Your task to perform on an android device: turn off wifi Image 0: 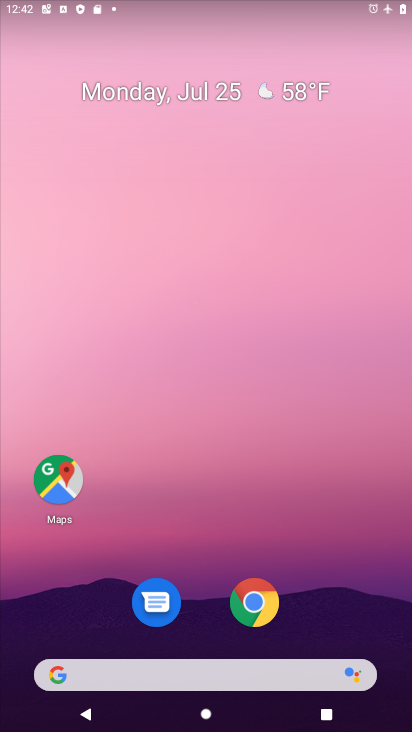
Step 0: drag from (205, 593) to (171, 75)
Your task to perform on an android device: turn off wifi Image 1: 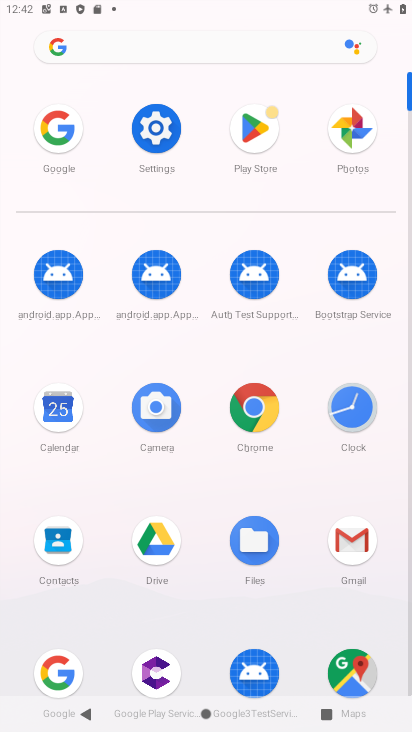
Step 1: click (161, 160)
Your task to perform on an android device: turn off wifi Image 2: 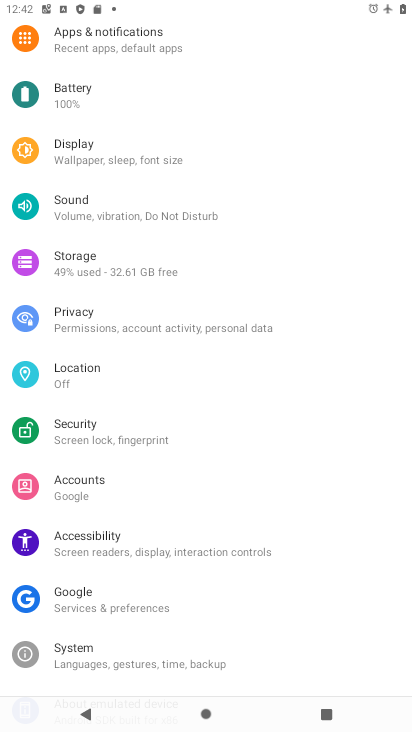
Step 2: drag from (149, 145) to (148, 459)
Your task to perform on an android device: turn off wifi Image 3: 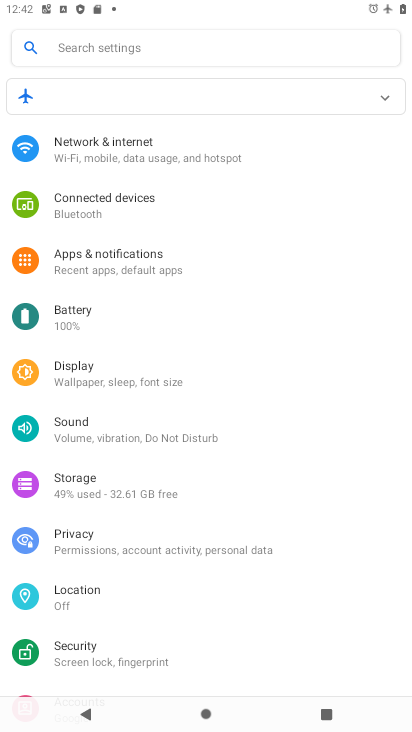
Step 3: click (124, 154)
Your task to perform on an android device: turn off wifi Image 4: 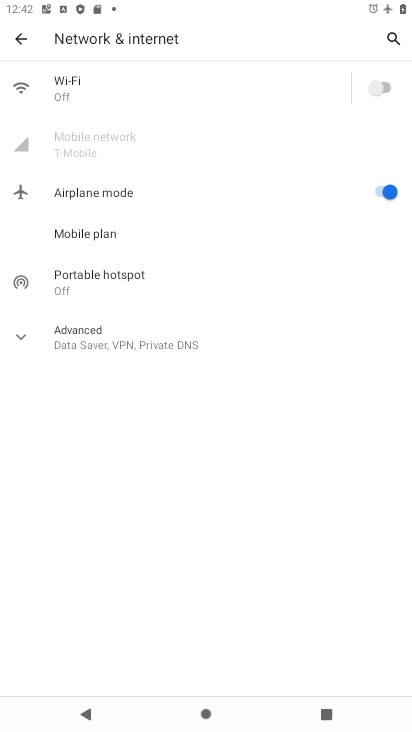
Step 4: task complete